Your task to perform on an android device: turn on priority inbox in the gmail app Image 0: 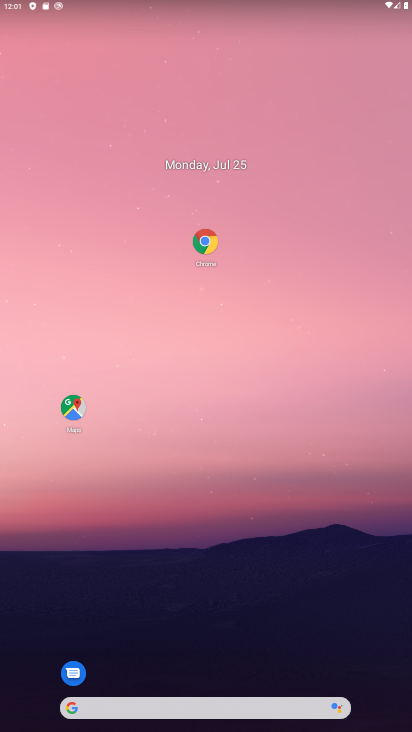
Step 0: drag from (333, 698) to (346, 105)
Your task to perform on an android device: turn on priority inbox in the gmail app Image 1: 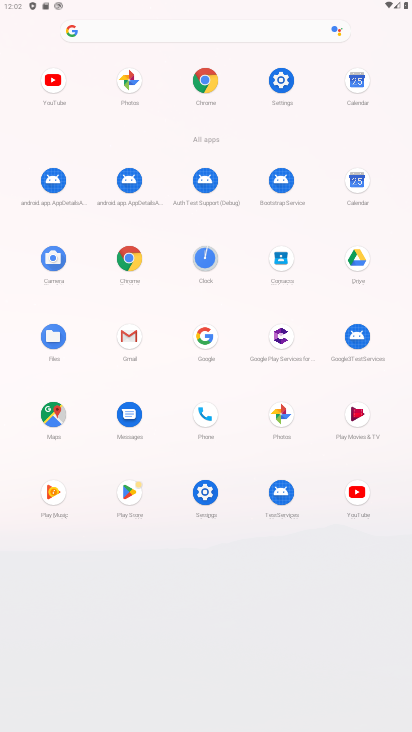
Step 1: click (123, 338)
Your task to perform on an android device: turn on priority inbox in the gmail app Image 2: 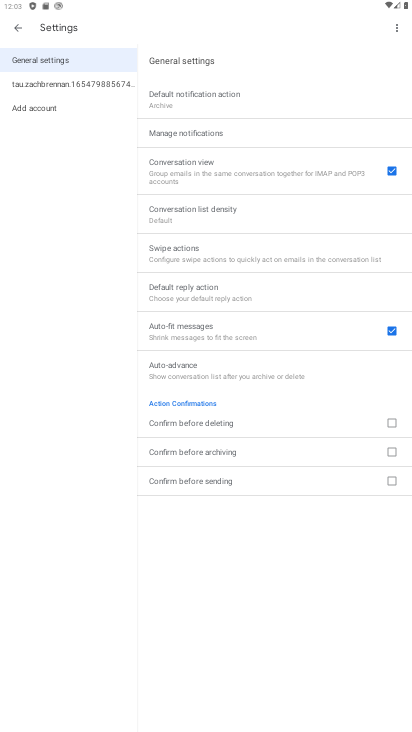
Step 2: press home button
Your task to perform on an android device: turn on priority inbox in the gmail app Image 3: 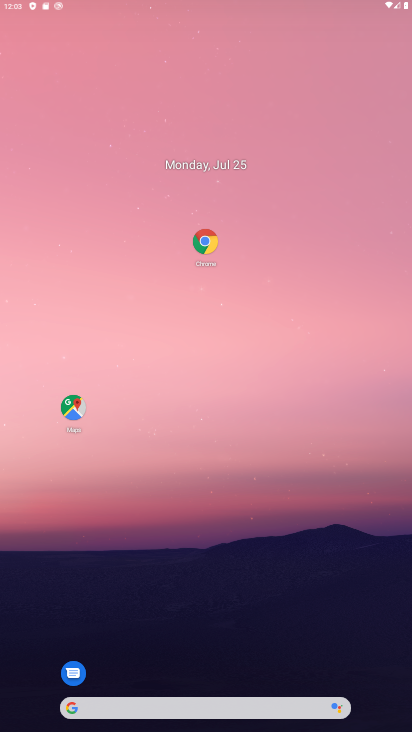
Step 3: drag from (235, 659) to (186, 45)
Your task to perform on an android device: turn on priority inbox in the gmail app Image 4: 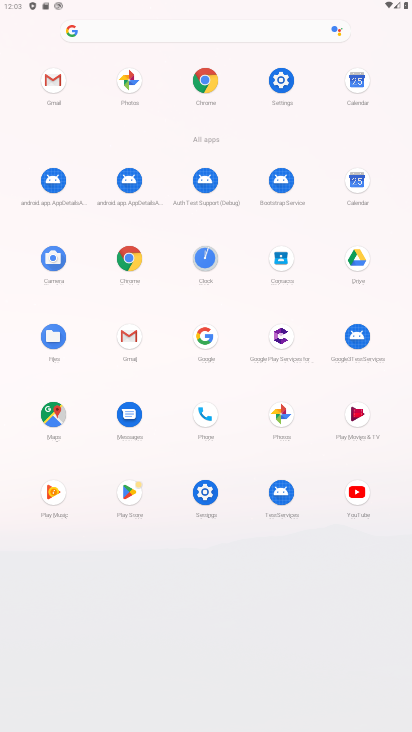
Step 4: click (131, 336)
Your task to perform on an android device: turn on priority inbox in the gmail app Image 5: 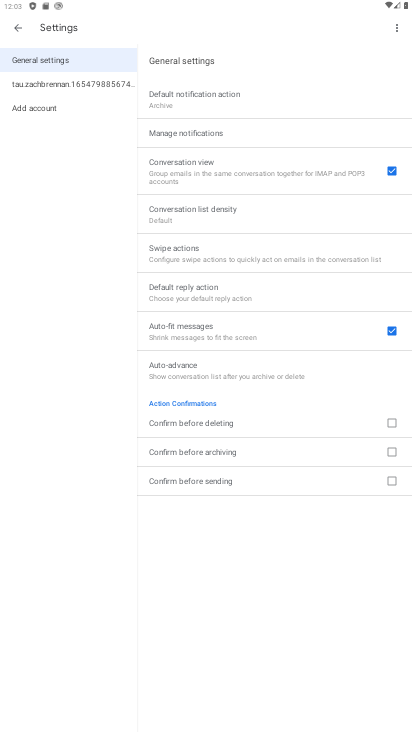
Step 5: click (60, 83)
Your task to perform on an android device: turn on priority inbox in the gmail app Image 6: 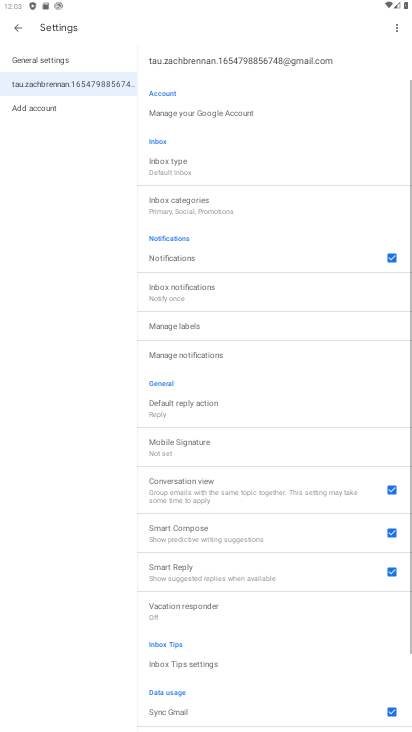
Step 6: click (245, 161)
Your task to perform on an android device: turn on priority inbox in the gmail app Image 7: 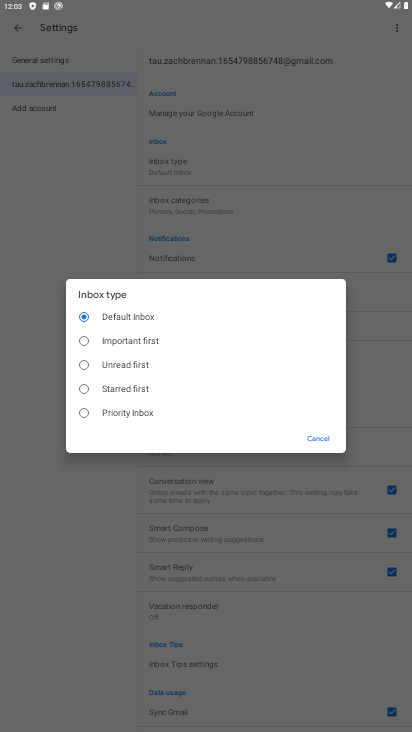
Step 7: click (85, 416)
Your task to perform on an android device: turn on priority inbox in the gmail app Image 8: 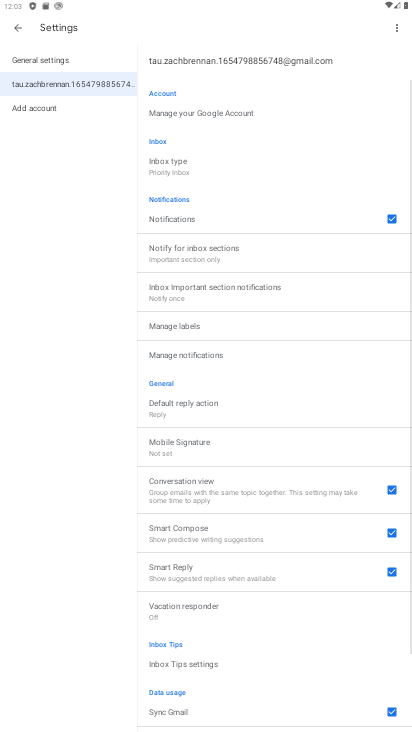
Step 8: task complete